Your task to perform on an android device: add a contact in the contacts app Image 0: 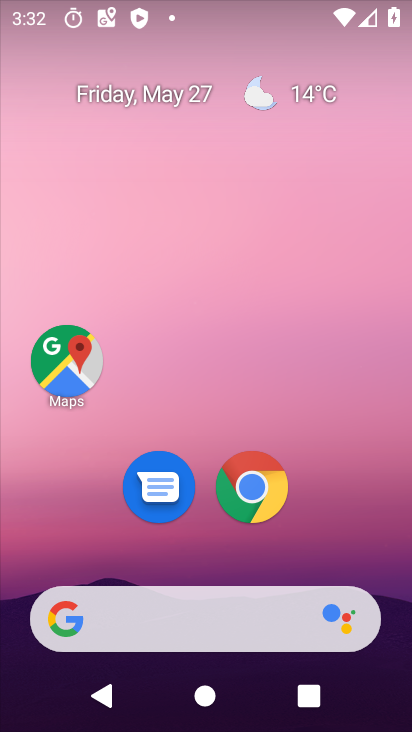
Step 0: drag from (337, 543) to (310, 115)
Your task to perform on an android device: add a contact in the contacts app Image 1: 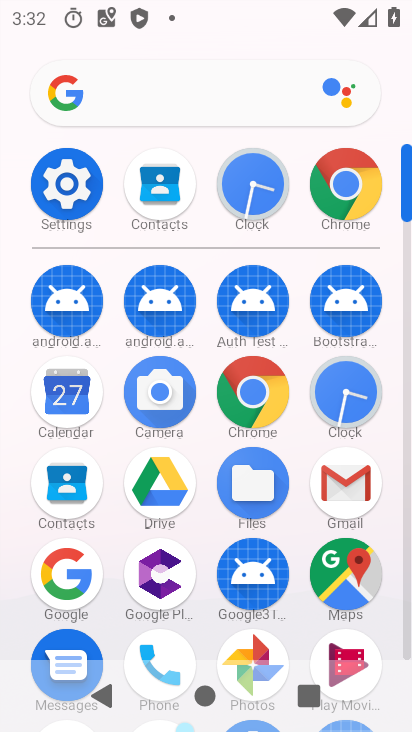
Step 1: click (57, 485)
Your task to perform on an android device: add a contact in the contacts app Image 2: 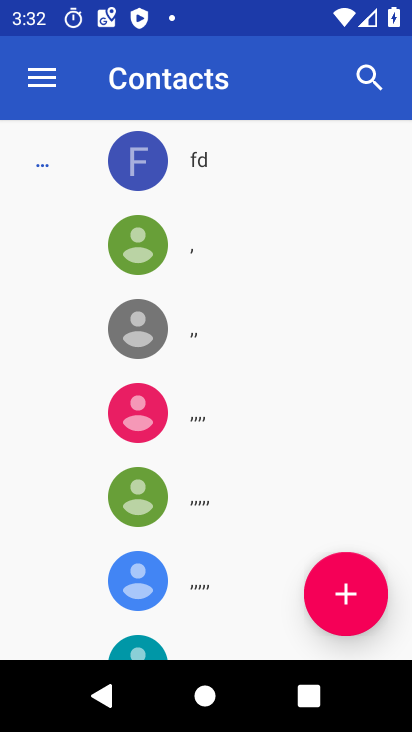
Step 2: click (328, 601)
Your task to perform on an android device: add a contact in the contacts app Image 3: 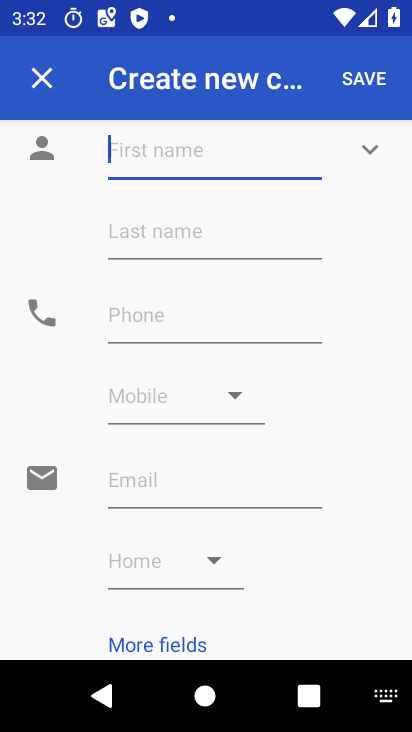
Step 3: type "mnjmnj"
Your task to perform on an android device: add a contact in the contacts app Image 4: 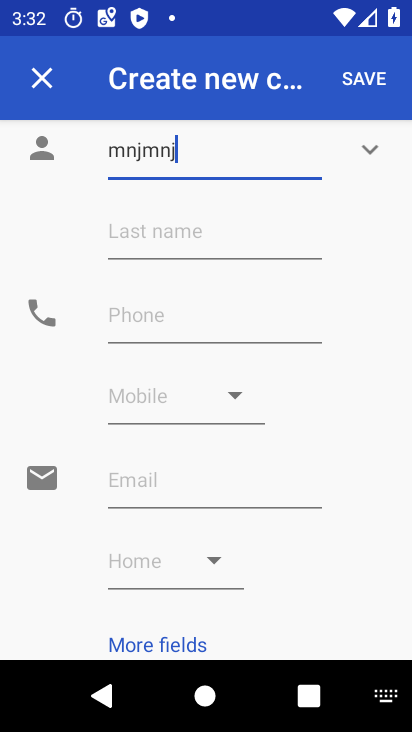
Step 4: type ""
Your task to perform on an android device: add a contact in the contacts app Image 5: 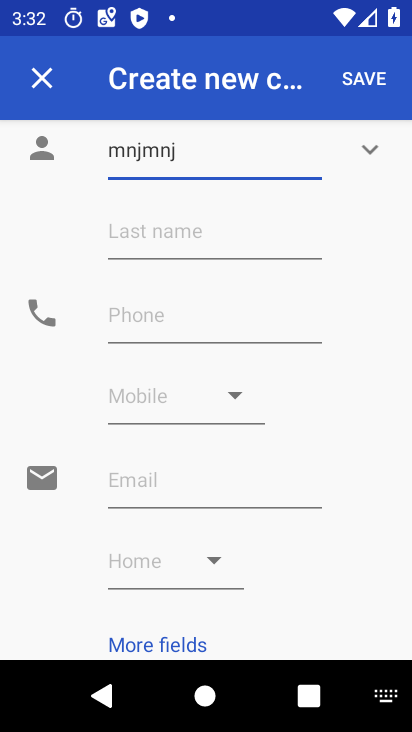
Step 5: click (369, 84)
Your task to perform on an android device: add a contact in the contacts app Image 6: 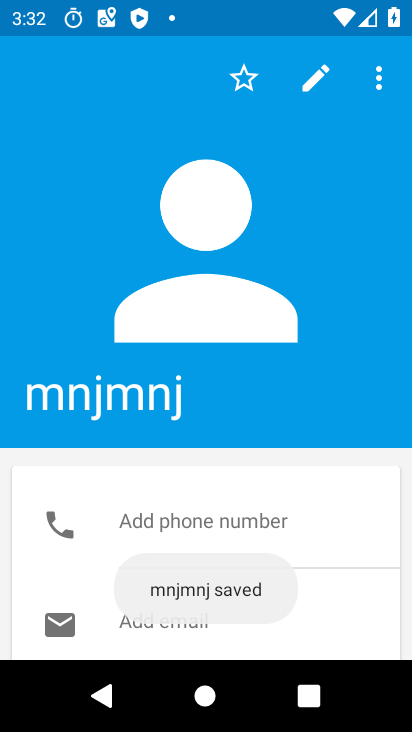
Step 6: task complete